Your task to perform on an android device: What is the recent news? Image 0: 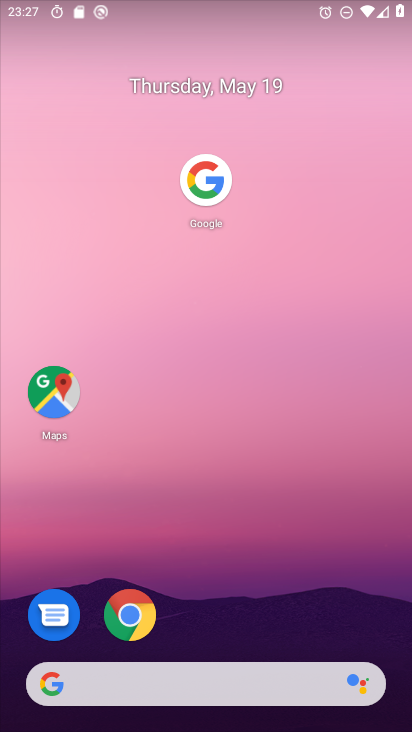
Step 0: click (203, 179)
Your task to perform on an android device: What is the recent news? Image 1: 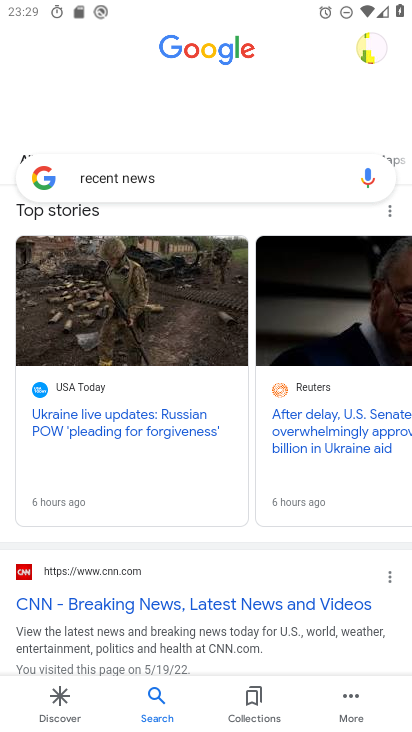
Step 1: task complete